Your task to perform on an android device: Search for pizza restaurants on Maps Image 0: 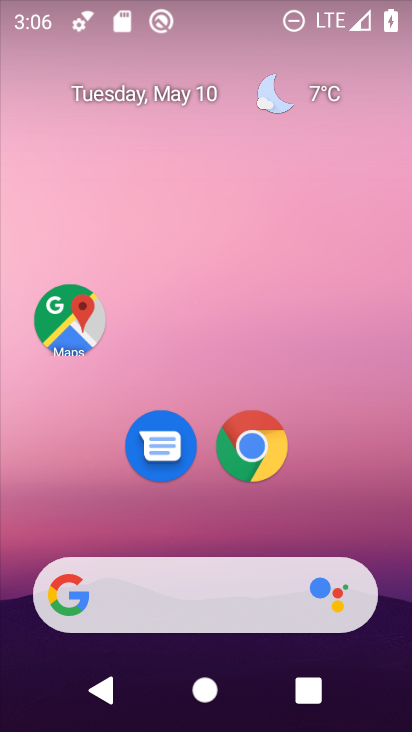
Step 0: click (62, 310)
Your task to perform on an android device: Search for pizza restaurants on Maps Image 1: 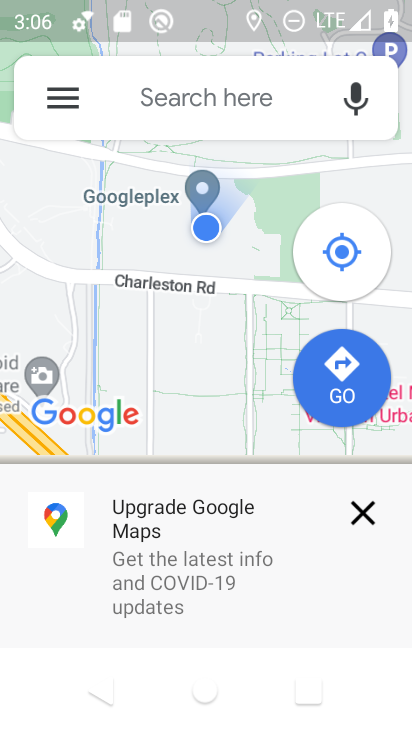
Step 1: click (211, 104)
Your task to perform on an android device: Search for pizza restaurants on Maps Image 2: 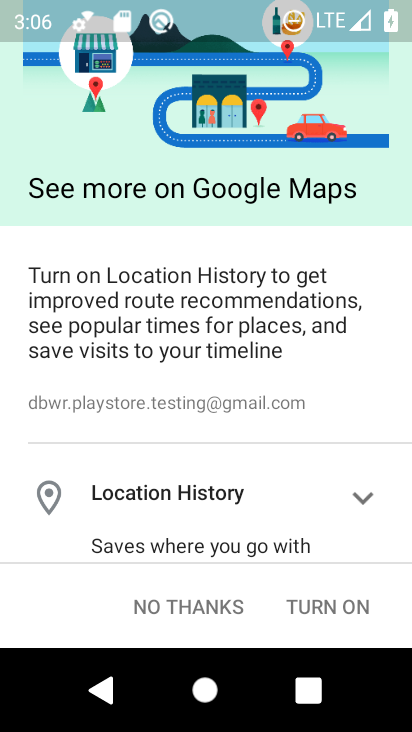
Step 2: click (187, 602)
Your task to perform on an android device: Search for pizza restaurants on Maps Image 3: 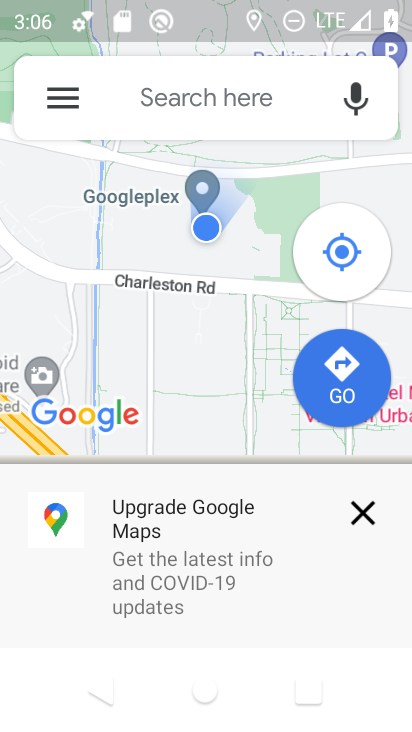
Step 3: click (191, 102)
Your task to perform on an android device: Search for pizza restaurants on Maps Image 4: 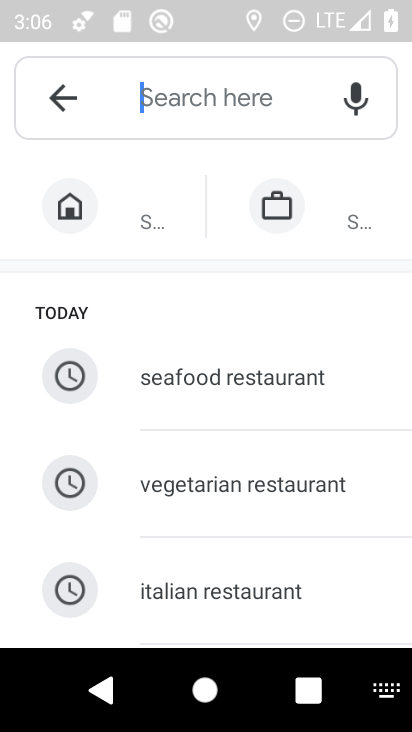
Step 4: type "pizza restaurants"
Your task to perform on an android device: Search for pizza restaurants on Maps Image 5: 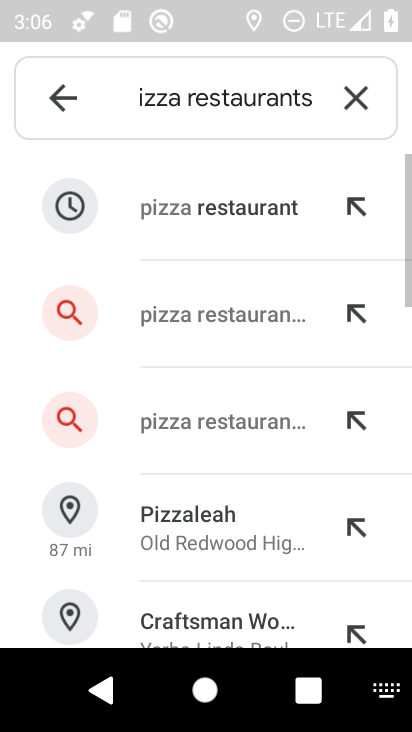
Step 5: click (173, 194)
Your task to perform on an android device: Search for pizza restaurants on Maps Image 6: 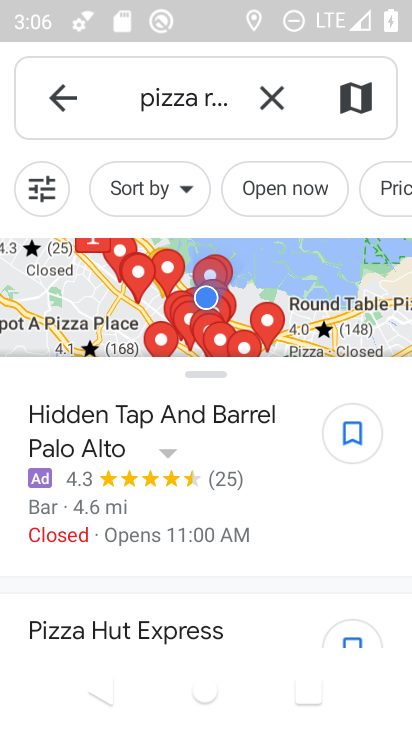
Step 6: task complete